Your task to perform on an android device: change timer sound Image 0: 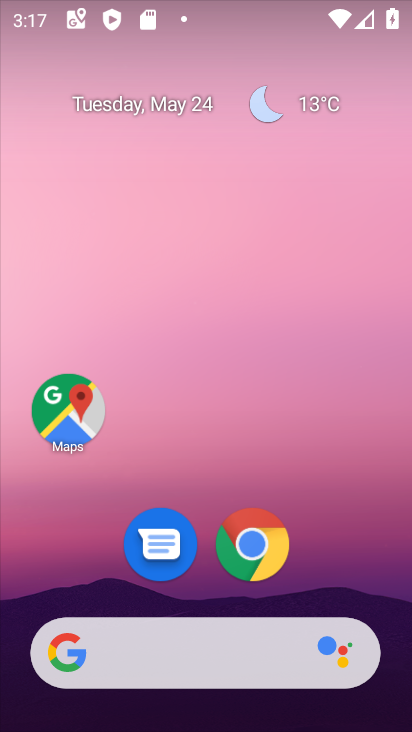
Step 0: drag from (381, 557) to (371, 77)
Your task to perform on an android device: change timer sound Image 1: 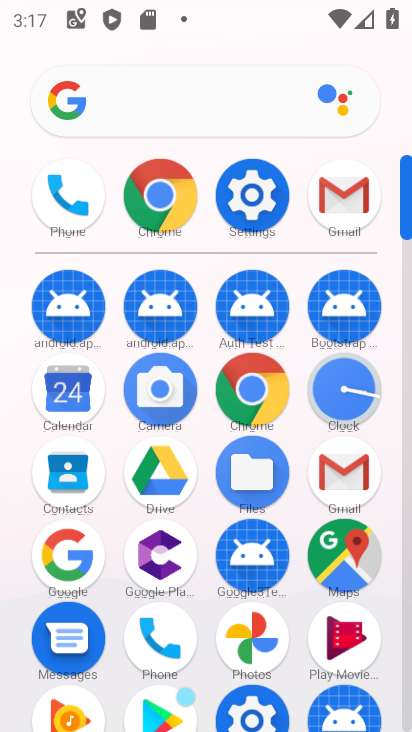
Step 1: click (360, 396)
Your task to perform on an android device: change timer sound Image 2: 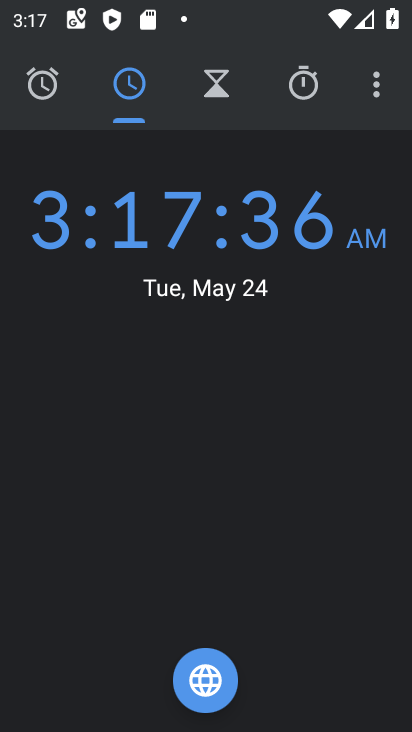
Step 2: click (390, 83)
Your task to perform on an android device: change timer sound Image 3: 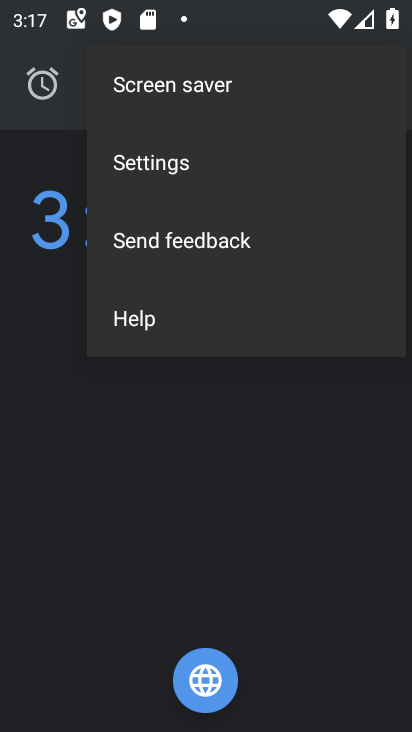
Step 3: click (183, 159)
Your task to perform on an android device: change timer sound Image 4: 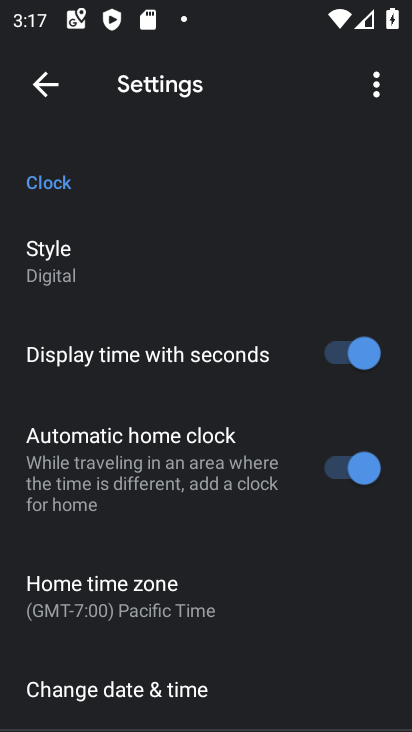
Step 4: drag from (104, 567) to (120, 208)
Your task to perform on an android device: change timer sound Image 5: 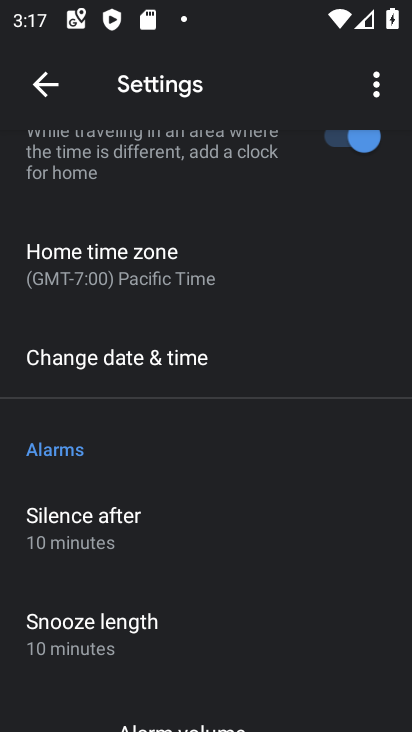
Step 5: drag from (169, 659) to (210, 318)
Your task to perform on an android device: change timer sound Image 6: 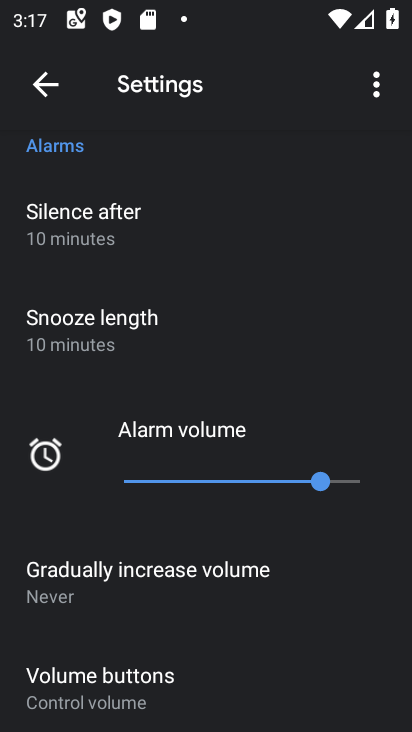
Step 6: drag from (131, 617) to (162, 306)
Your task to perform on an android device: change timer sound Image 7: 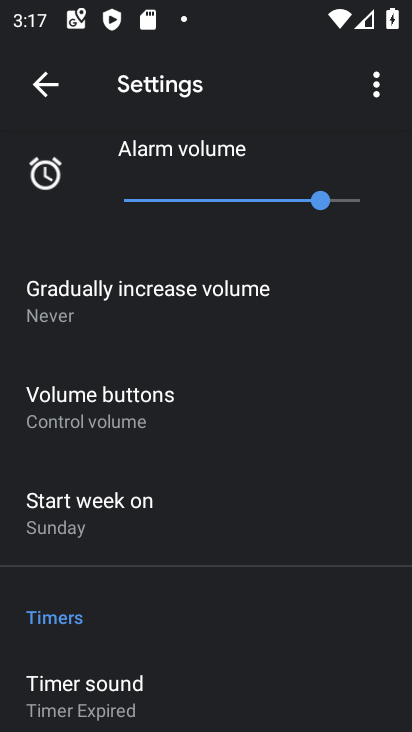
Step 7: drag from (173, 645) to (205, 306)
Your task to perform on an android device: change timer sound Image 8: 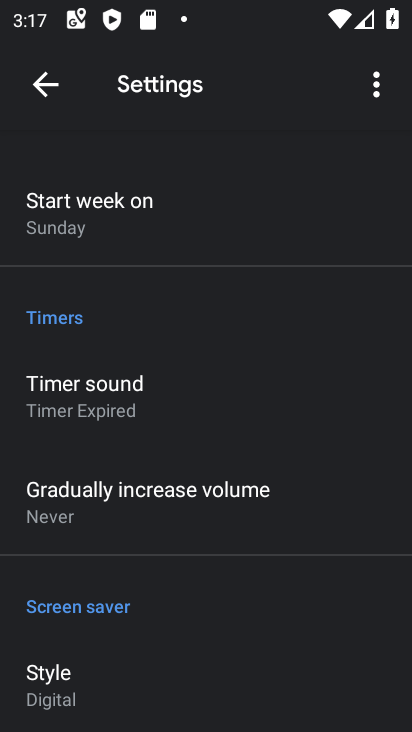
Step 8: click (138, 387)
Your task to perform on an android device: change timer sound Image 9: 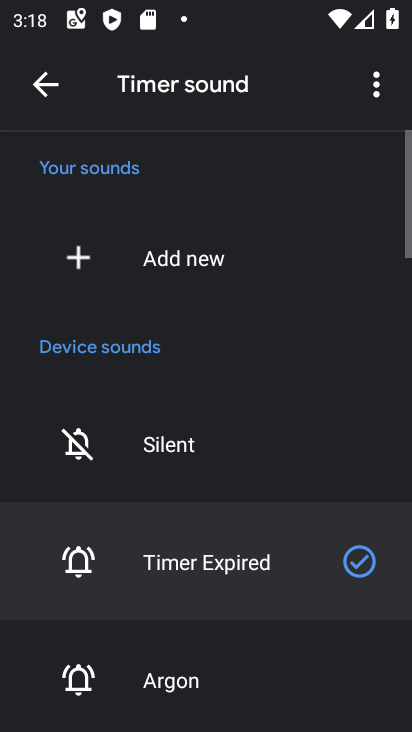
Step 9: click (144, 661)
Your task to perform on an android device: change timer sound Image 10: 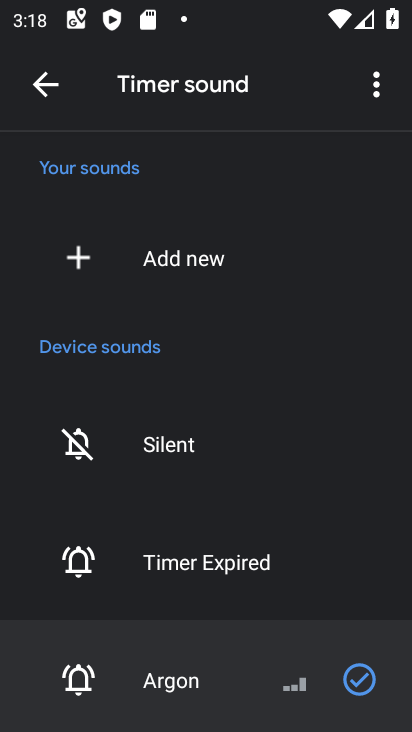
Step 10: task complete